Your task to perform on an android device: Show me recent news Image 0: 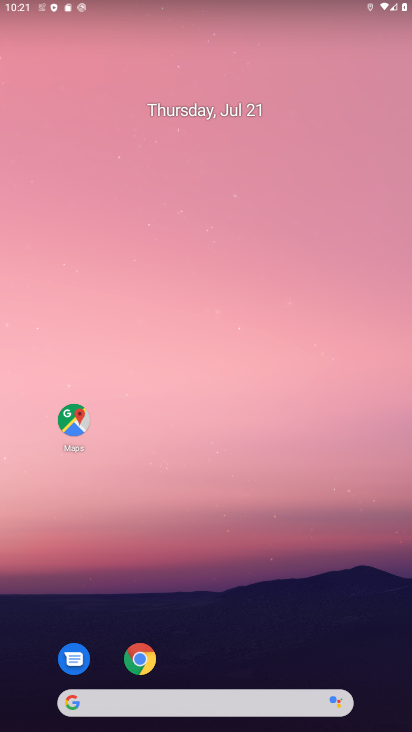
Step 0: click (211, 697)
Your task to perform on an android device: Show me recent news Image 1: 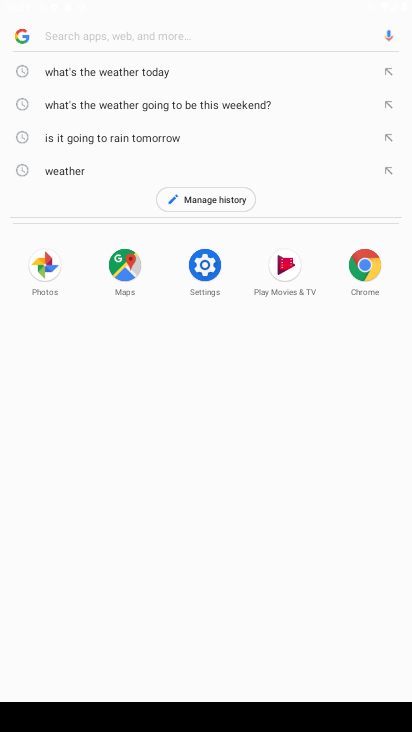
Step 1: type "recent news"
Your task to perform on an android device: Show me recent news Image 2: 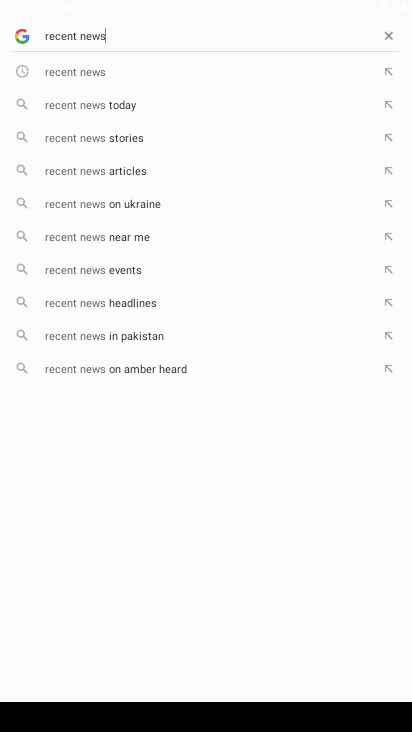
Step 2: click (56, 65)
Your task to perform on an android device: Show me recent news Image 3: 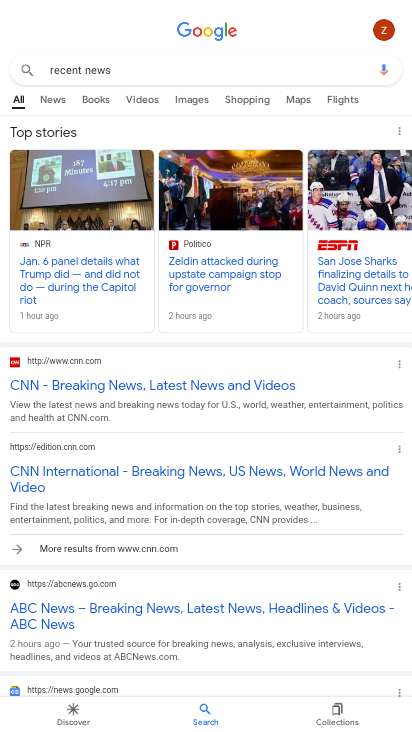
Step 3: click (53, 96)
Your task to perform on an android device: Show me recent news Image 4: 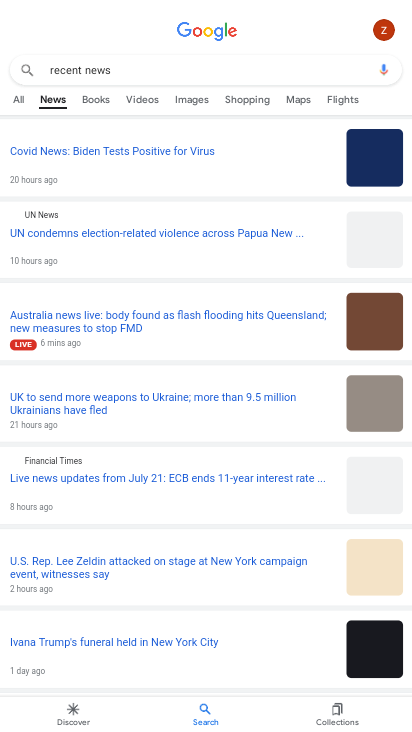
Step 4: task complete